Your task to perform on an android device: Clear all items from cart on amazon.com. Search for "apple airpods" on amazon.com, select the first entry, add it to the cart, then select checkout. Image 0: 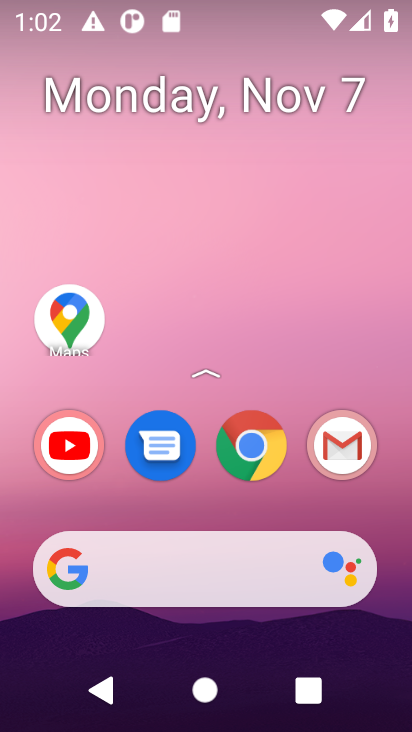
Step 0: click (239, 444)
Your task to perform on an android device: Clear all items from cart on amazon.com. Search for "apple airpods" on amazon.com, select the first entry, add it to the cart, then select checkout. Image 1: 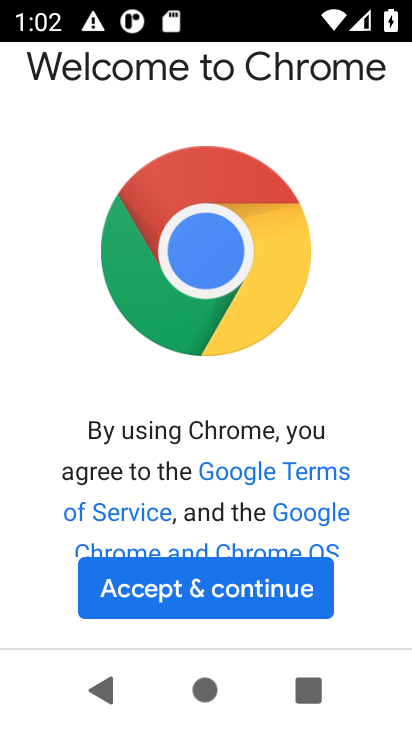
Step 1: click (250, 586)
Your task to perform on an android device: Clear all items from cart on amazon.com. Search for "apple airpods" on amazon.com, select the first entry, add it to the cart, then select checkout. Image 2: 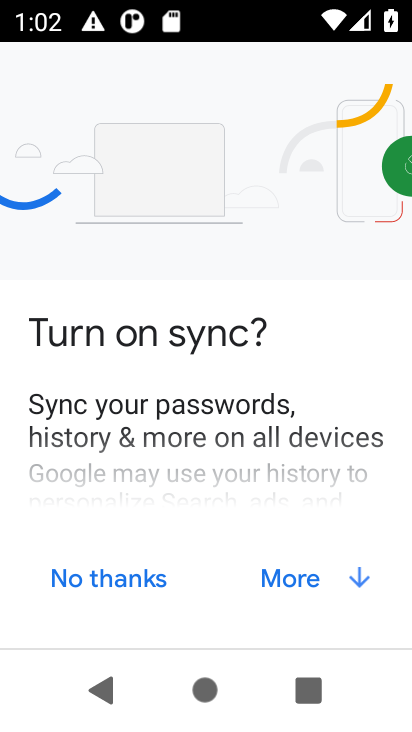
Step 2: click (298, 588)
Your task to perform on an android device: Clear all items from cart on amazon.com. Search for "apple airpods" on amazon.com, select the first entry, add it to the cart, then select checkout. Image 3: 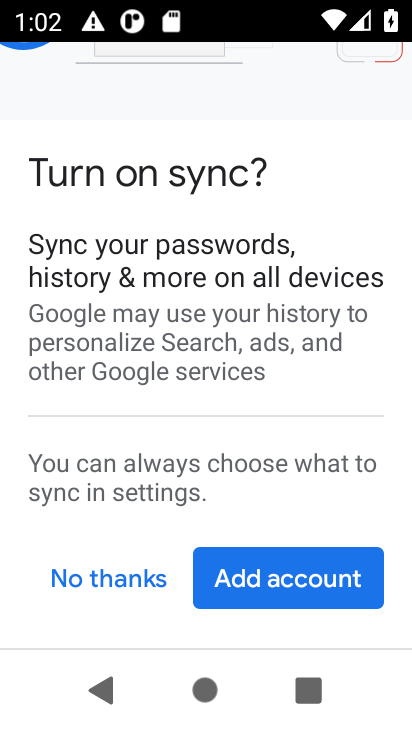
Step 3: click (128, 575)
Your task to perform on an android device: Clear all items from cart on amazon.com. Search for "apple airpods" on amazon.com, select the first entry, add it to the cart, then select checkout. Image 4: 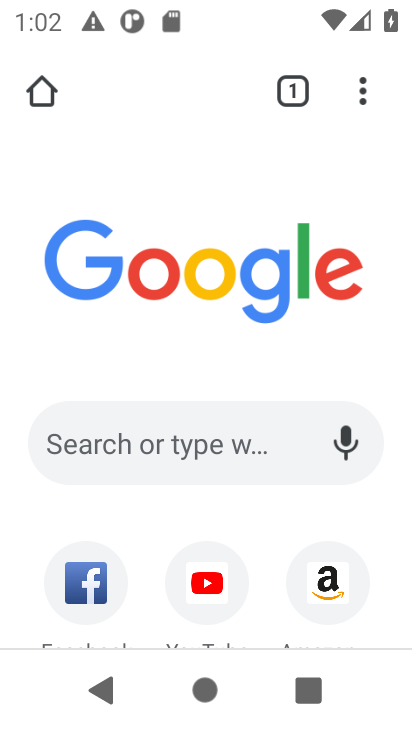
Step 4: click (334, 595)
Your task to perform on an android device: Clear all items from cart on amazon.com. Search for "apple airpods" on amazon.com, select the first entry, add it to the cart, then select checkout. Image 5: 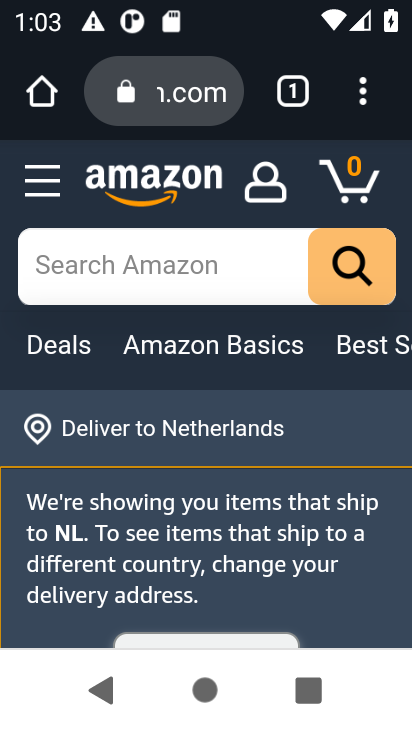
Step 5: click (220, 266)
Your task to perform on an android device: Clear all items from cart on amazon.com. Search for "apple airpods" on amazon.com, select the first entry, add it to the cart, then select checkout. Image 6: 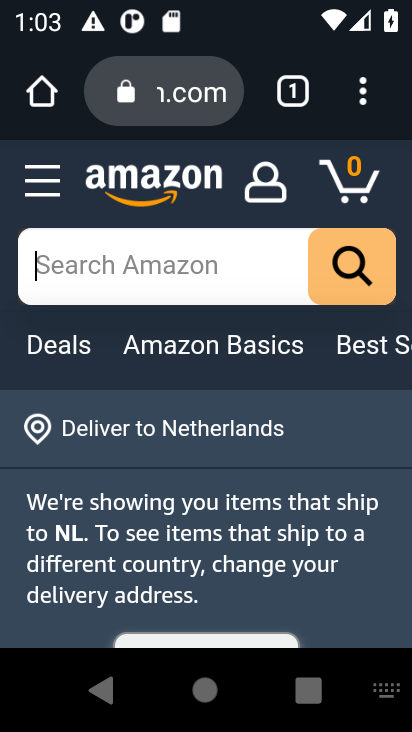
Step 6: type "apple airpods"
Your task to perform on an android device: Clear all items from cart on amazon.com. Search for "apple airpods" on amazon.com, select the first entry, add it to the cart, then select checkout. Image 7: 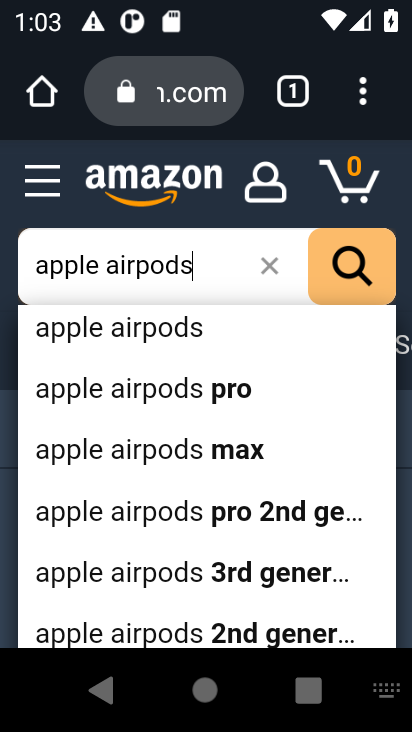
Step 7: click (157, 331)
Your task to perform on an android device: Clear all items from cart on amazon.com. Search for "apple airpods" on amazon.com, select the first entry, add it to the cart, then select checkout. Image 8: 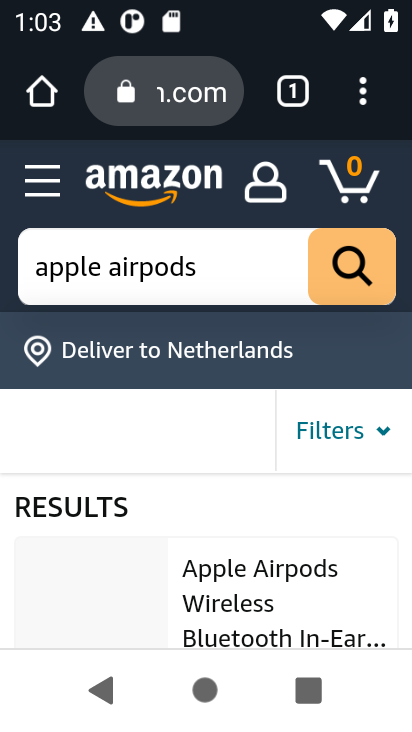
Step 8: drag from (284, 589) to (272, 301)
Your task to perform on an android device: Clear all items from cart on amazon.com. Search for "apple airpods" on amazon.com, select the first entry, add it to the cart, then select checkout. Image 9: 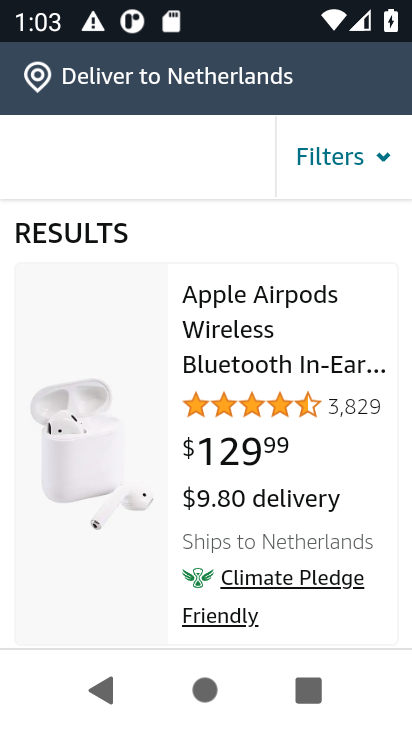
Step 9: click (99, 405)
Your task to perform on an android device: Clear all items from cart on amazon.com. Search for "apple airpods" on amazon.com, select the first entry, add it to the cart, then select checkout. Image 10: 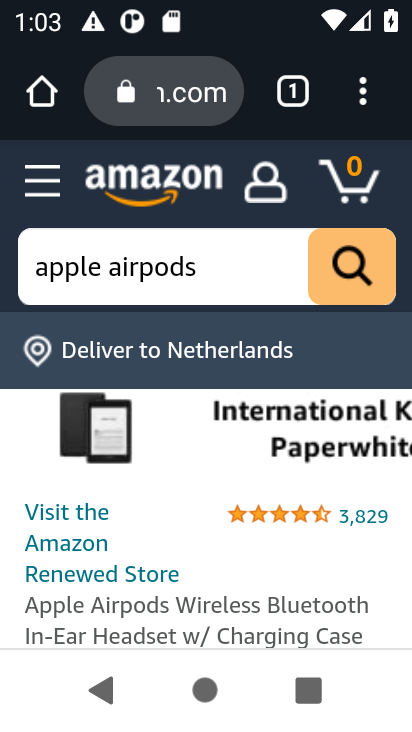
Step 10: drag from (230, 533) to (226, 96)
Your task to perform on an android device: Clear all items from cart on amazon.com. Search for "apple airpods" on amazon.com, select the first entry, add it to the cart, then select checkout. Image 11: 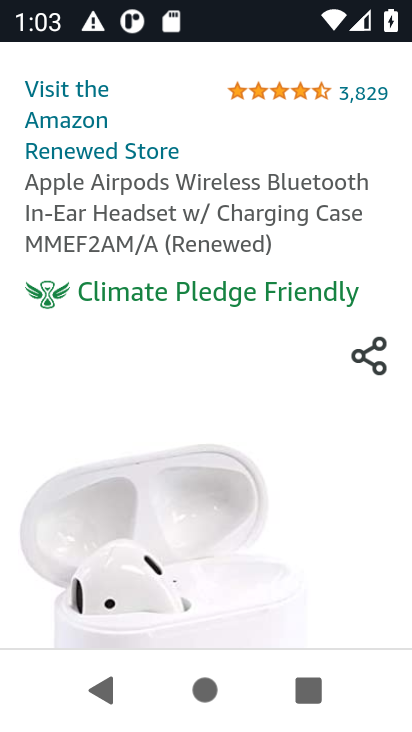
Step 11: drag from (280, 414) to (282, 113)
Your task to perform on an android device: Clear all items from cart on amazon.com. Search for "apple airpods" on amazon.com, select the first entry, add it to the cart, then select checkout. Image 12: 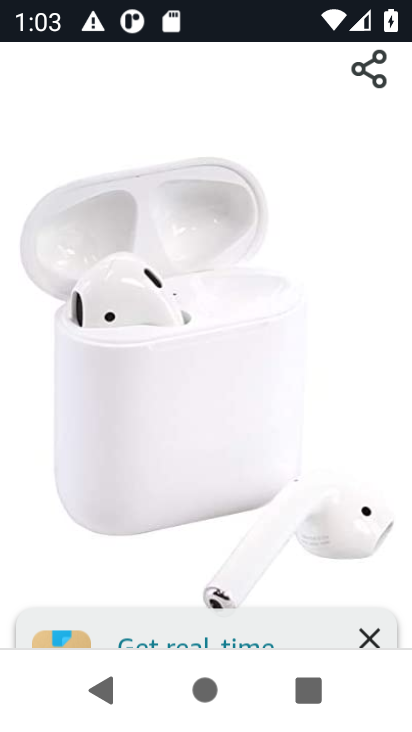
Step 12: drag from (295, 515) to (296, 174)
Your task to perform on an android device: Clear all items from cart on amazon.com. Search for "apple airpods" on amazon.com, select the first entry, add it to the cart, then select checkout. Image 13: 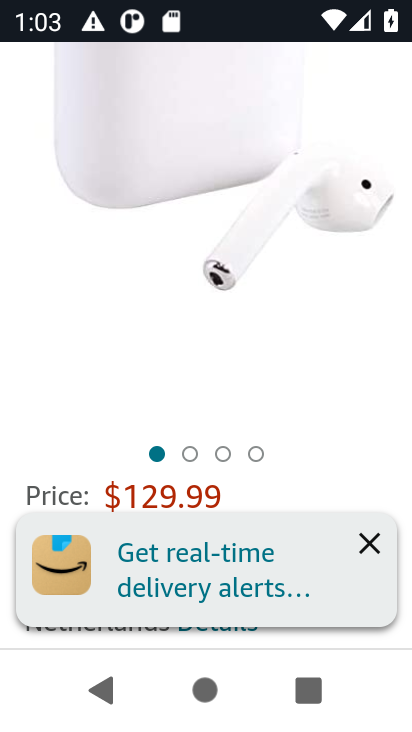
Step 13: click (374, 543)
Your task to perform on an android device: Clear all items from cart on amazon.com. Search for "apple airpods" on amazon.com, select the first entry, add it to the cart, then select checkout. Image 14: 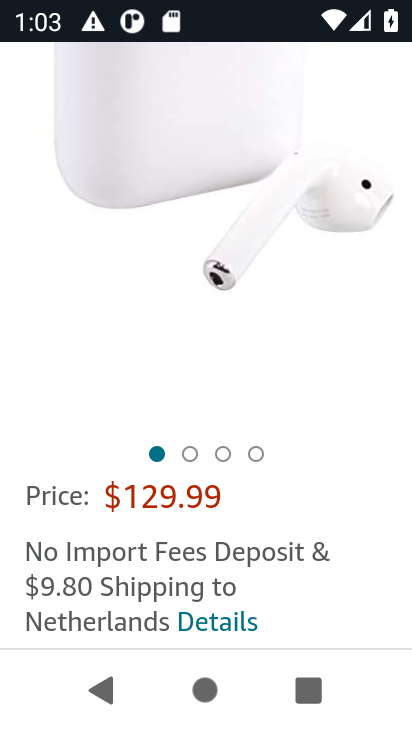
Step 14: drag from (335, 482) to (399, 167)
Your task to perform on an android device: Clear all items from cart on amazon.com. Search for "apple airpods" on amazon.com, select the first entry, add it to the cart, then select checkout. Image 15: 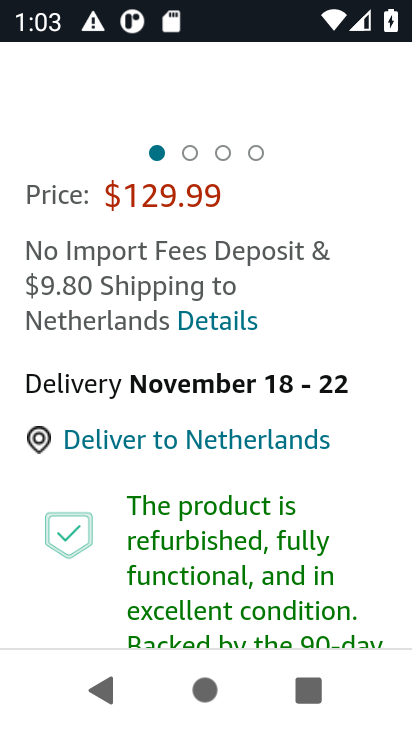
Step 15: drag from (277, 525) to (308, 137)
Your task to perform on an android device: Clear all items from cart on amazon.com. Search for "apple airpods" on amazon.com, select the first entry, add it to the cart, then select checkout. Image 16: 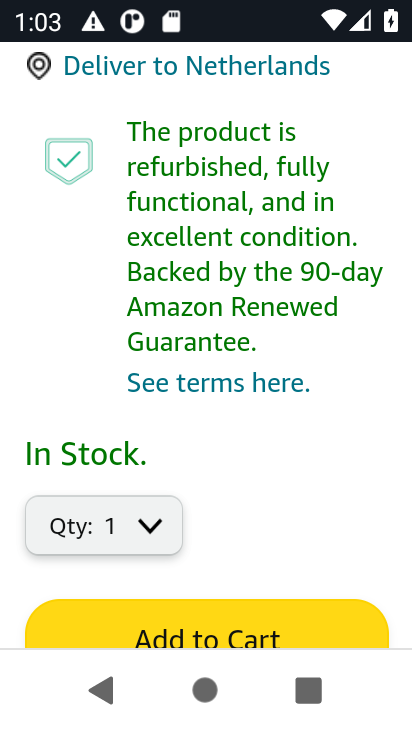
Step 16: drag from (323, 501) to (335, 193)
Your task to perform on an android device: Clear all items from cart on amazon.com. Search for "apple airpods" on amazon.com, select the first entry, add it to the cart, then select checkout. Image 17: 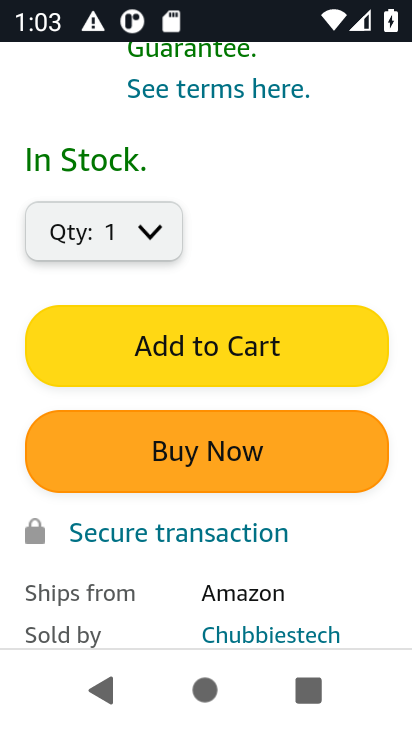
Step 17: click (275, 336)
Your task to perform on an android device: Clear all items from cart on amazon.com. Search for "apple airpods" on amazon.com, select the first entry, add it to the cart, then select checkout. Image 18: 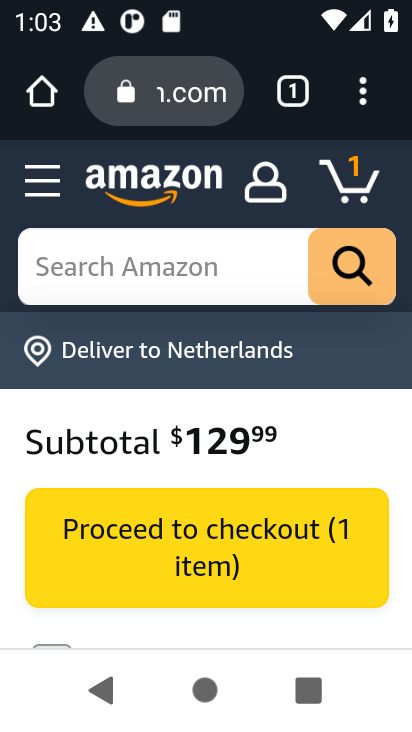
Step 18: click (242, 531)
Your task to perform on an android device: Clear all items from cart on amazon.com. Search for "apple airpods" on amazon.com, select the first entry, add it to the cart, then select checkout. Image 19: 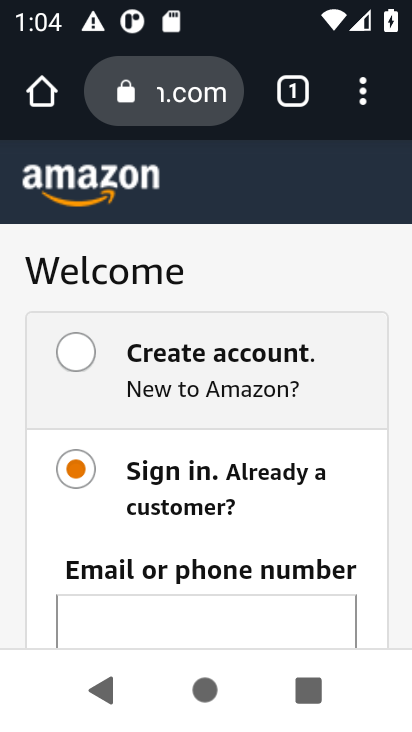
Step 19: task complete